Your task to perform on an android device: visit the assistant section in the google photos Image 0: 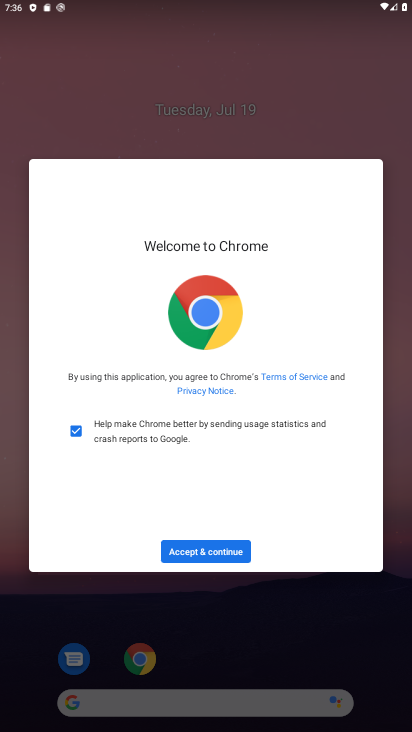
Step 0: press home button
Your task to perform on an android device: visit the assistant section in the google photos Image 1: 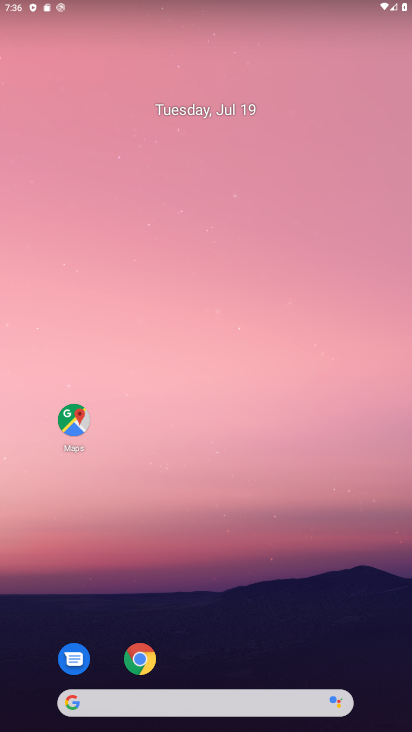
Step 1: drag from (225, 610) to (203, 258)
Your task to perform on an android device: visit the assistant section in the google photos Image 2: 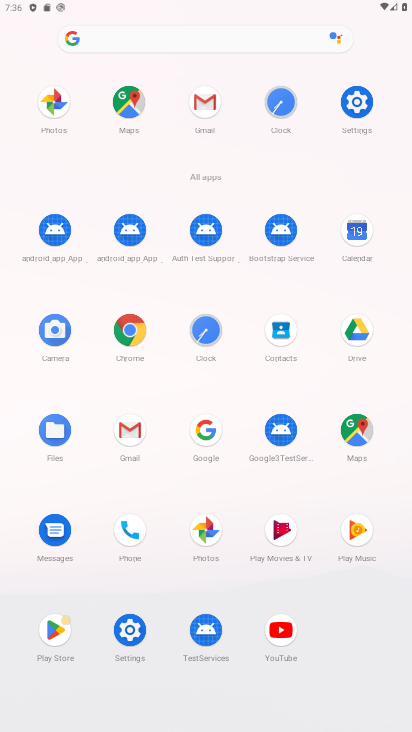
Step 2: click (204, 530)
Your task to perform on an android device: visit the assistant section in the google photos Image 3: 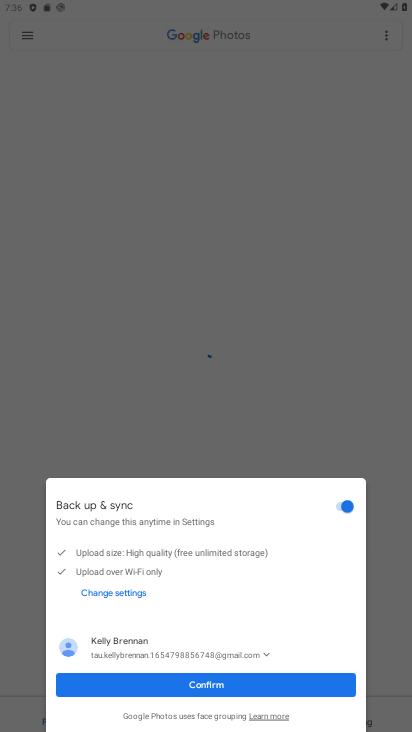
Step 3: click (292, 684)
Your task to perform on an android device: visit the assistant section in the google photos Image 4: 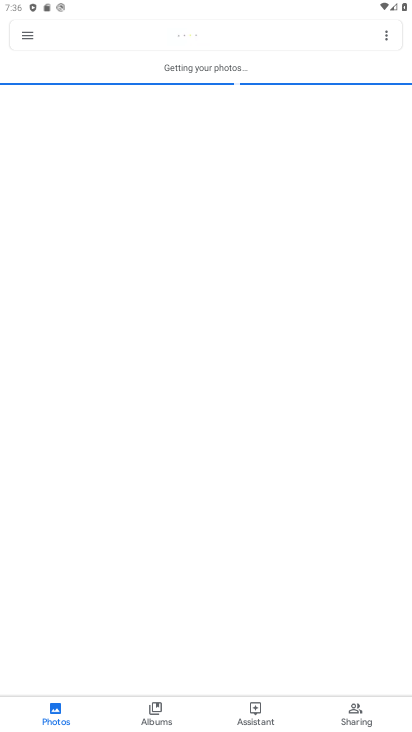
Step 4: click (265, 720)
Your task to perform on an android device: visit the assistant section in the google photos Image 5: 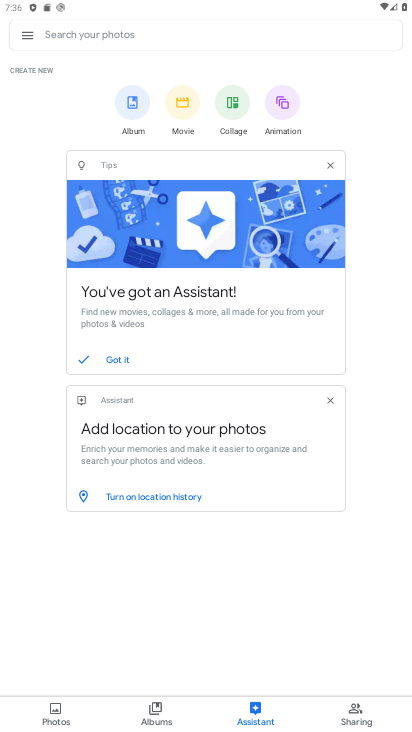
Step 5: task complete